Your task to perform on an android device: Go to ESPN.com Image 0: 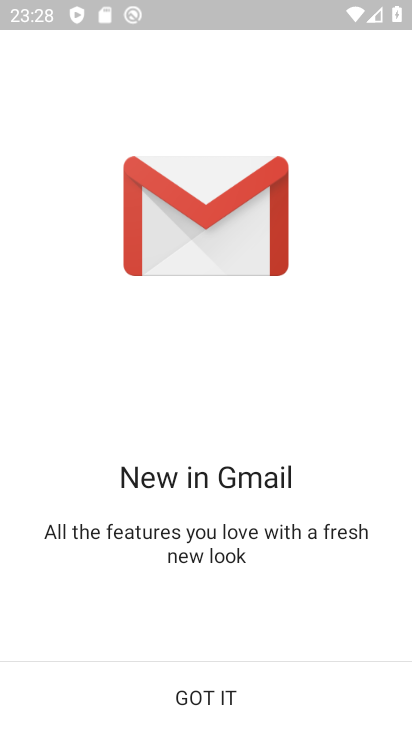
Step 0: press back button
Your task to perform on an android device: Go to ESPN.com Image 1: 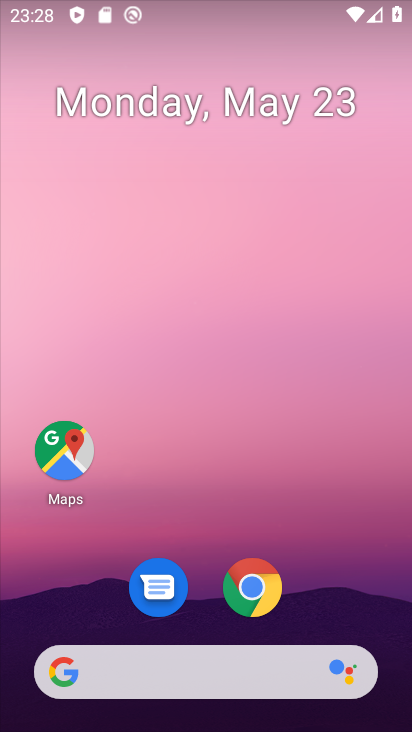
Step 1: click (255, 583)
Your task to perform on an android device: Go to ESPN.com Image 2: 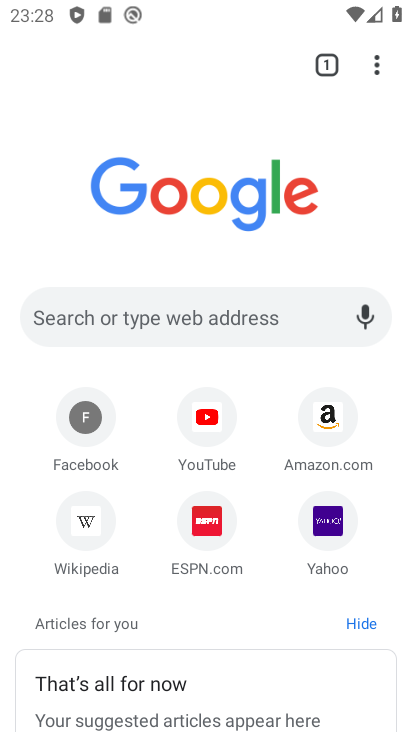
Step 2: click (195, 315)
Your task to perform on an android device: Go to ESPN.com Image 3: 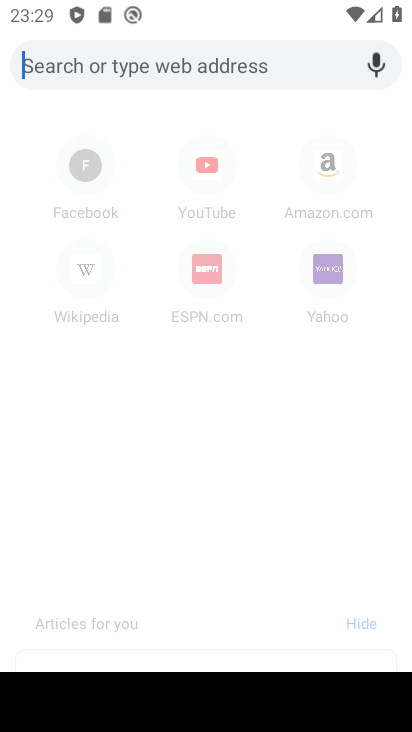
Step 3: type "ESPN.com"
Your task to perform on an android device: Go to ESPN.com Image 4: 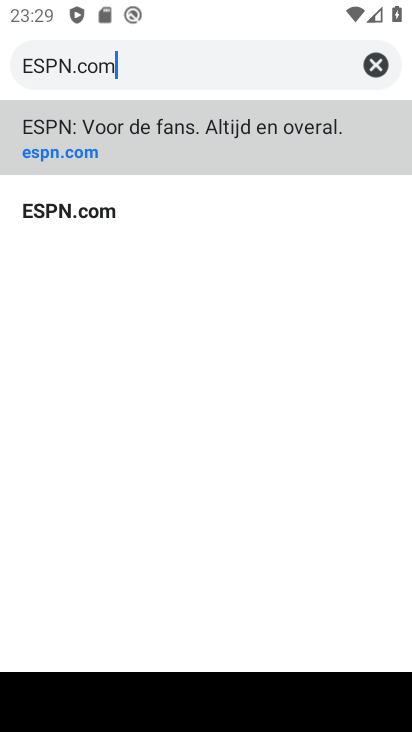
Step 4: type ""
Your task to perform on an android device: Go to ESPN.com Image 5: 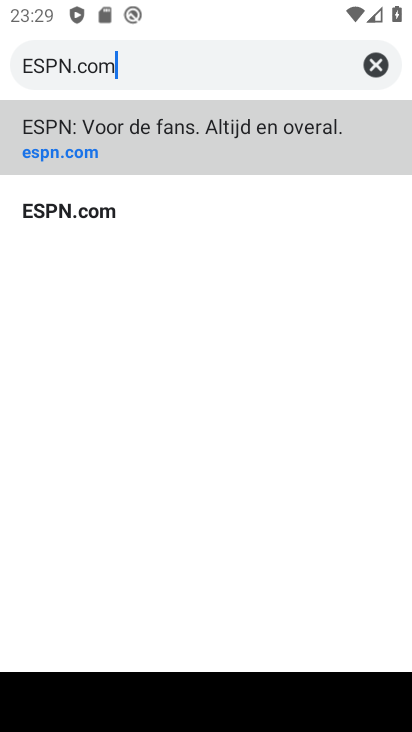
Step 5: click (108, 225)
Your task to perform on an android device: Go to ESPN.com Image 6: 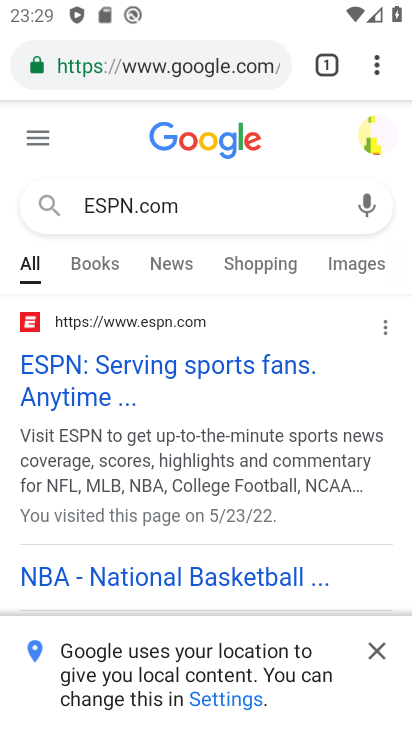
Step 6: click (144, 374)
Your task to perform on an android device: Go to ESPN.com Image 7: 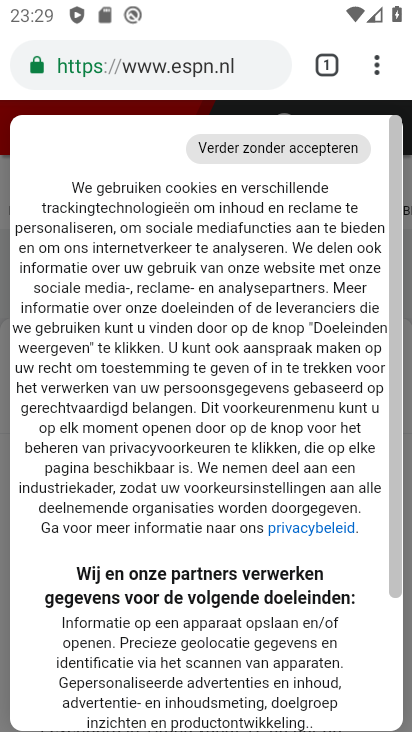
Step 7: task complete